Your task to perform on an android device: Open Wikipedia Image 0: 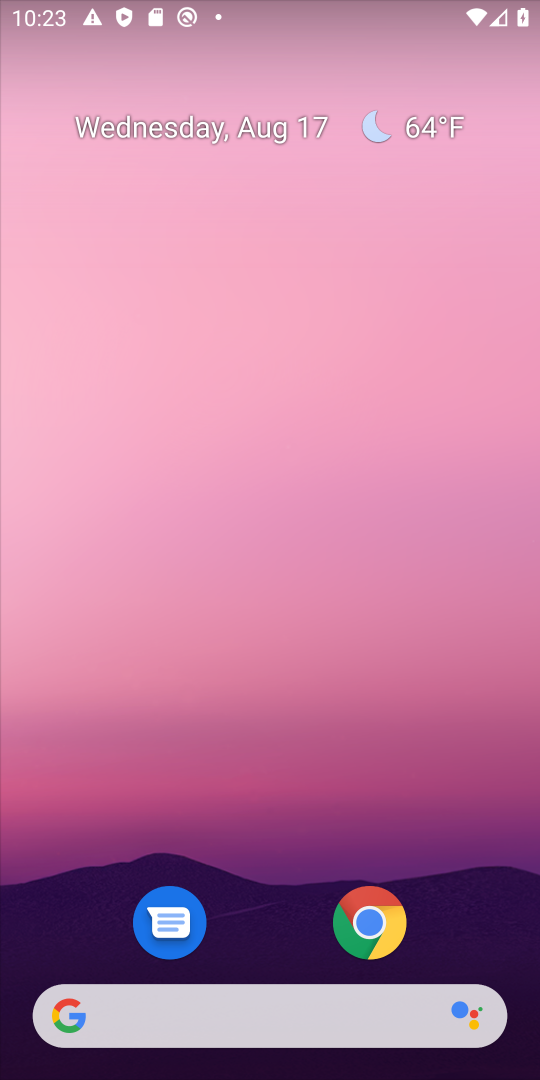
Step 0: drag from (273, 833) to (243, 141)
Your task to perform on an android device: Open Wikipedia Image 1: 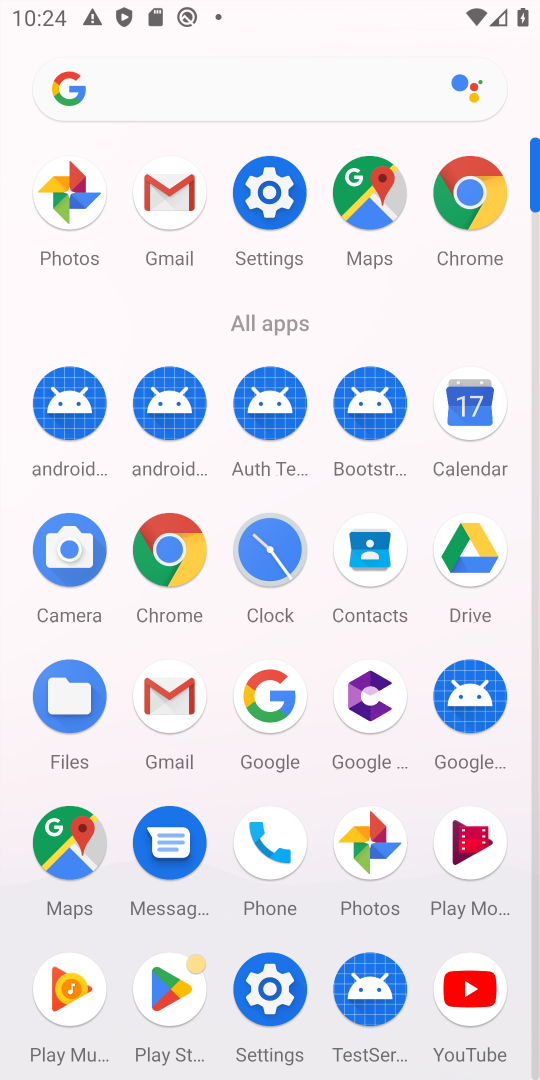
Step 1: click (169, 549)
Your task to perform on an android device: Open Wikipedia Image 2: 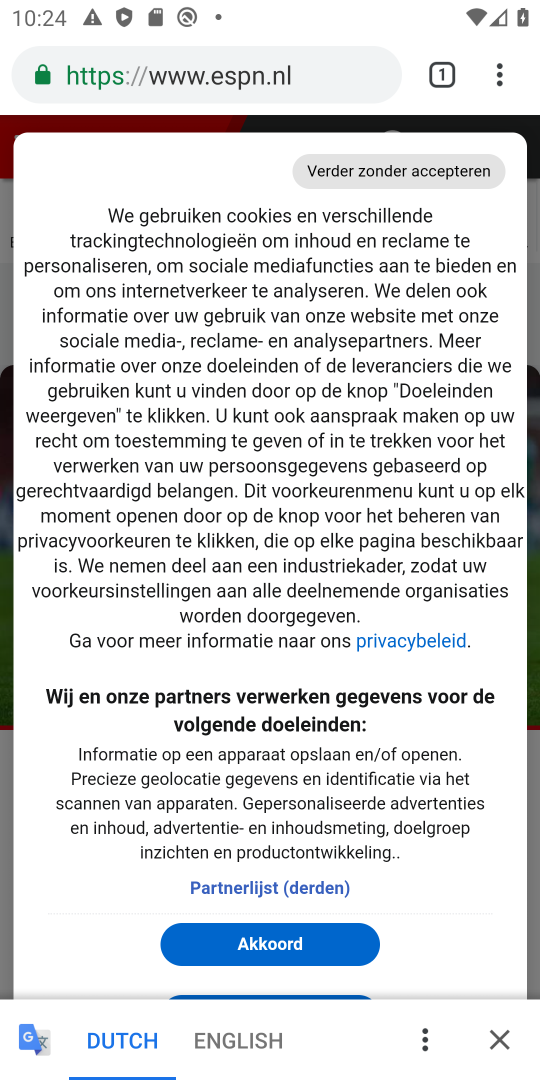
Step 2: click (163, 78)
Your task to perform on an android device: Open Wikipedia Image 3: 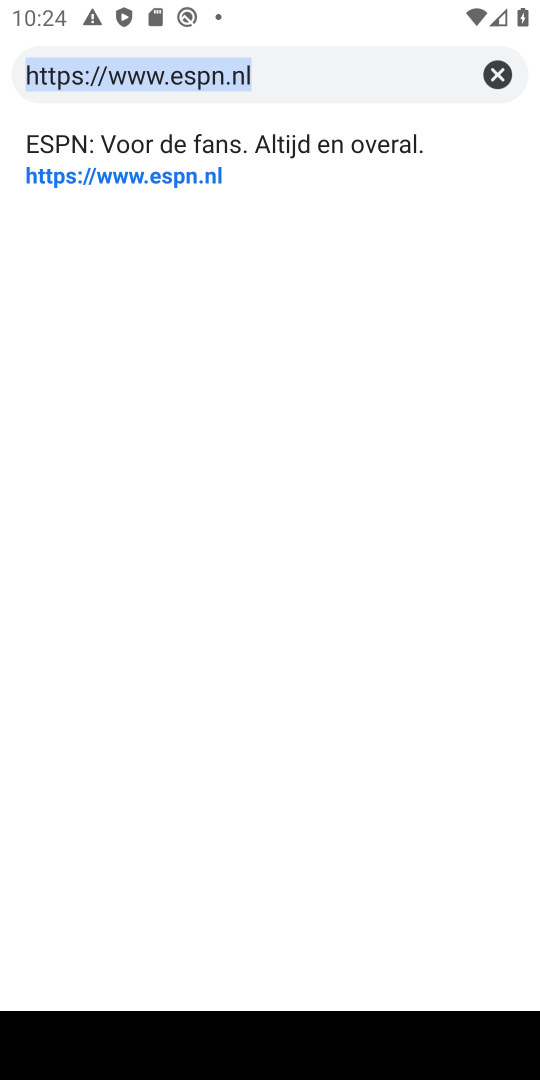
Step 3: type "wikipedia"
Your task to perform on an android device: Open Wikipedia Image 4: 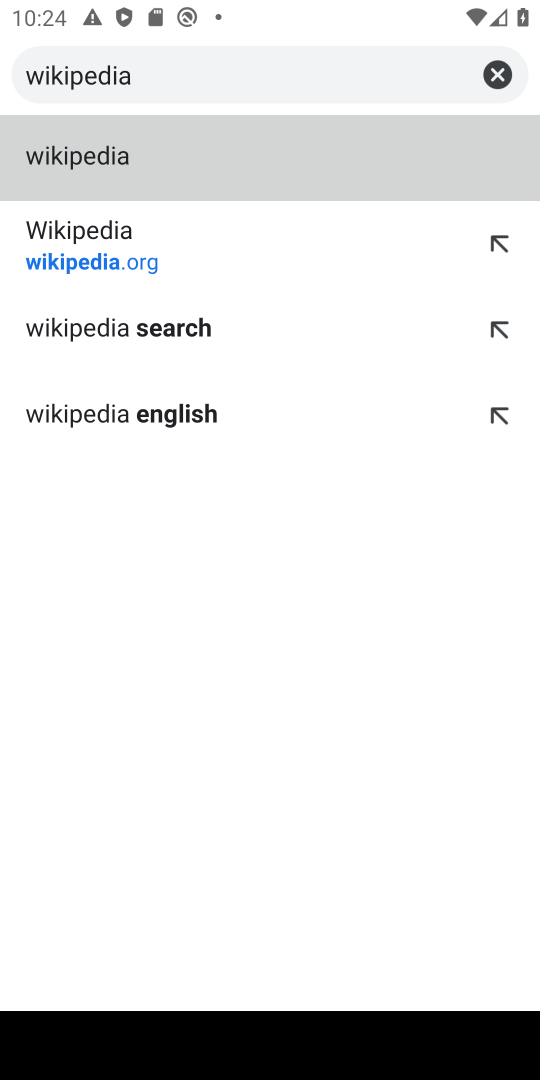
Step 4: click (109, 277)
Your task to perform on an android device: Open Wikipedia Image 5: 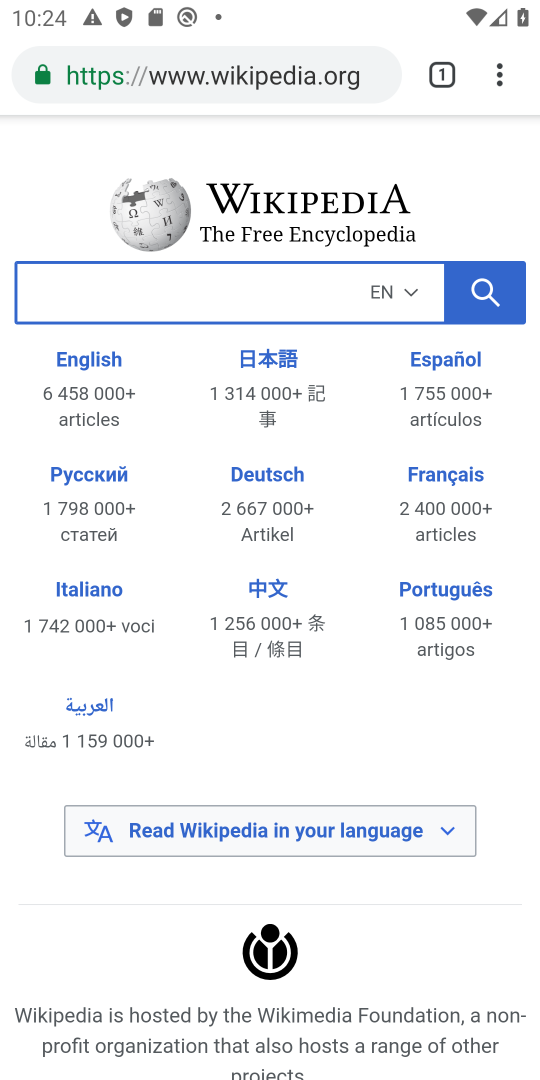
Step 5: task complete